Your task to perform on an android device: allow cookies in the chrome app Image 0: 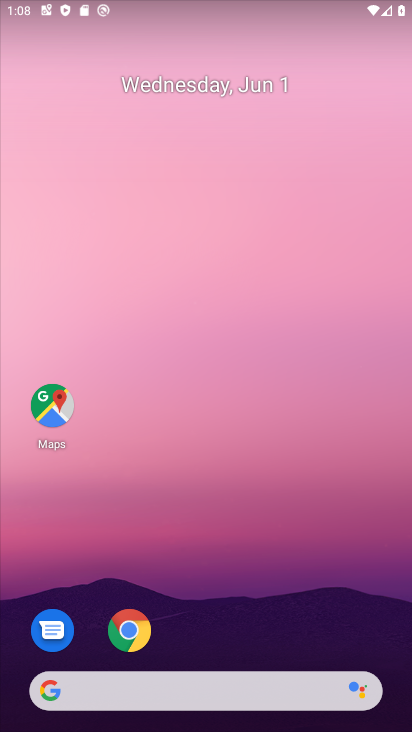
Step 0: press home button
Your task to perform on an android device: allow cookies in the chrome app Image 1: 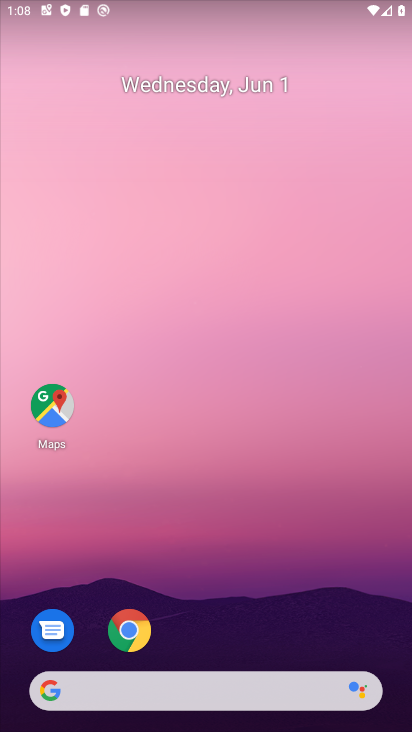
Step 1: click (137, 627)
Your task to perform on an android device: allow cookies in the chrome app Image 2: 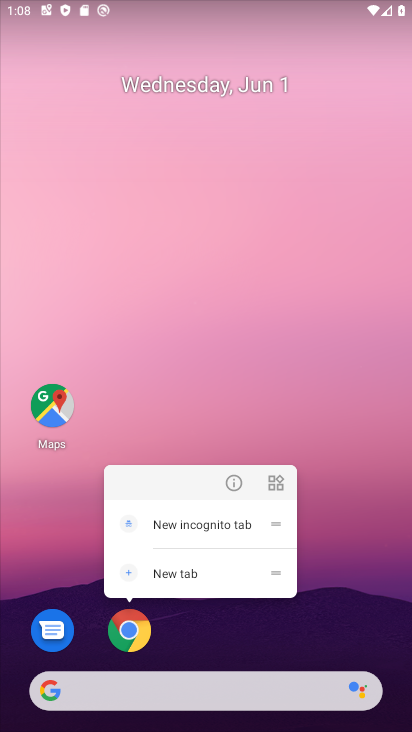
Step 2: click (135, 623)
Your task to perform on an android device: allow cookies in the chrome app Image 3: 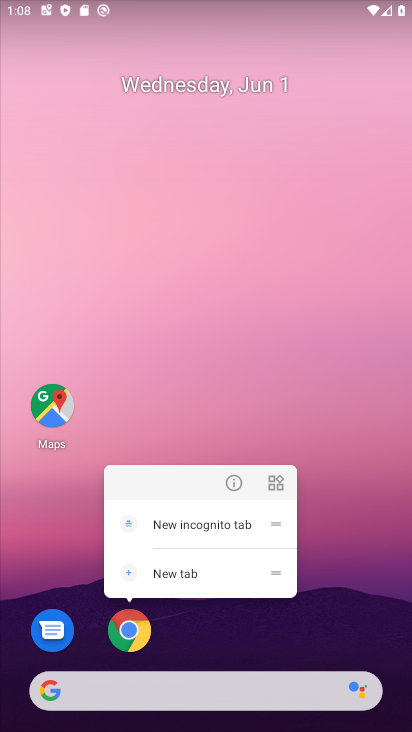
Step 3: click (229, 646)
Your task to perform on an android device: allow cookies in the chrome app Image 4: 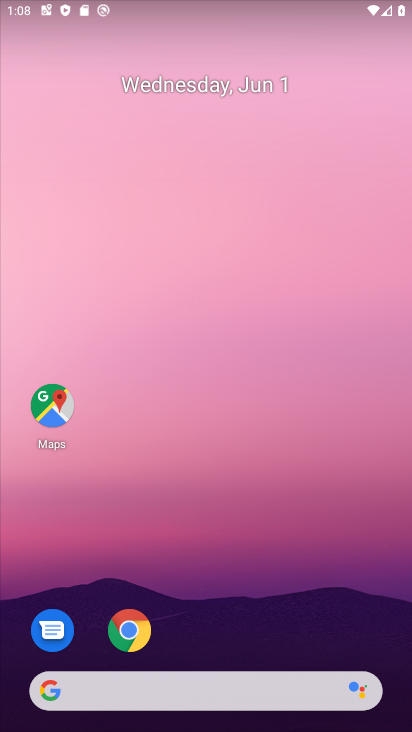
Step 4: click (125, 629)
Your task to perform on an android device: allow cookies in the chrome app Image 5: 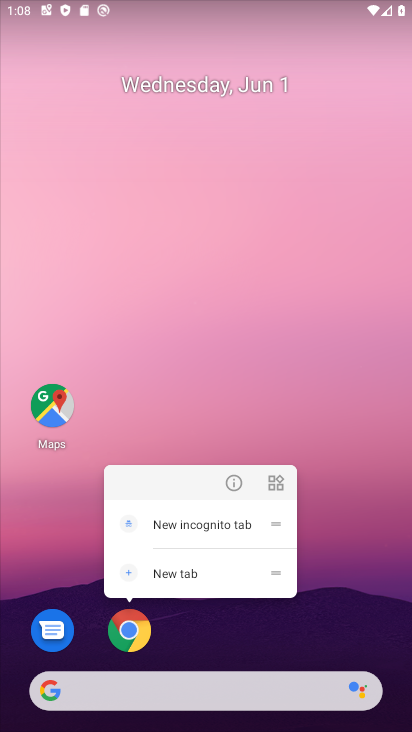
Step 5: click (249, 628)
Your task to perform on an android device: allow cookies in the chrome app Image 6: 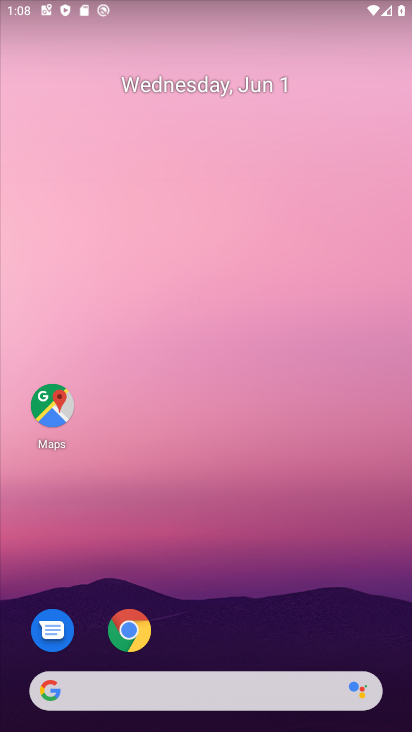
Step 6: drag from (249, 628) to (217, 4)
Your task to perform on an android device: allow cookies in the chrome app Image 7: 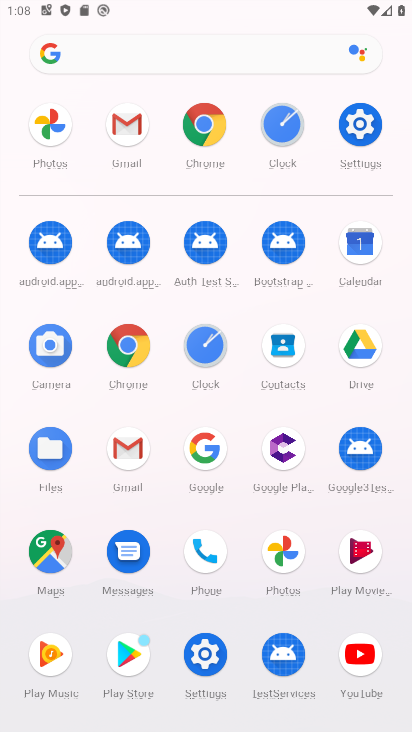
Step 7: click (204, 134)
Your task to perform on an android device: allow cookies in the chrome app Image 8: 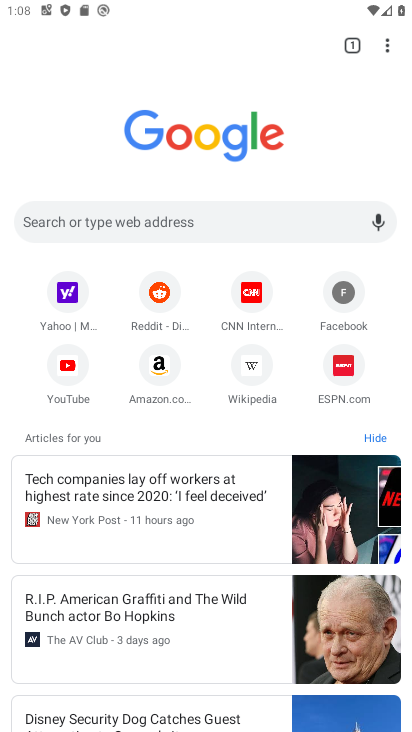
Step 8: drag from (387, 46) to (220, 380)
Your task to perform on an android device: allow cookies in the chrome app Image 9: 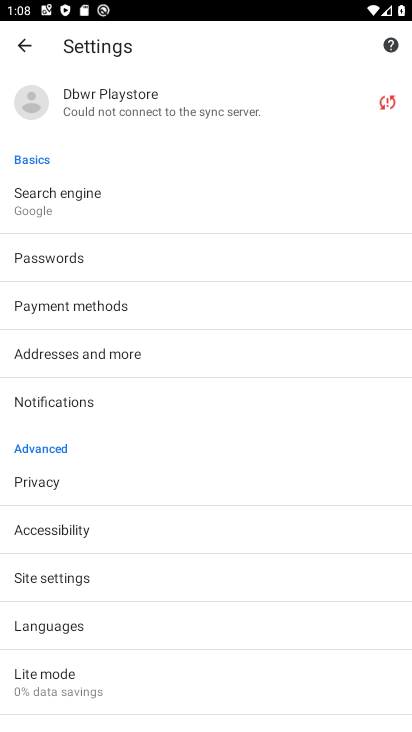
Step 9: click (60, 578)
Your task to perform on an android device: allow cookies in the chrome app Image 10: 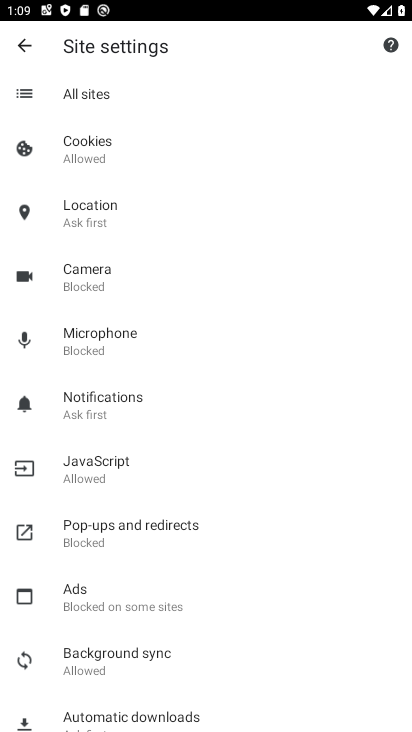
Step 10: click (99, 151)
Your task to perform on an android device: allow cookies in the chrome app Image 11: 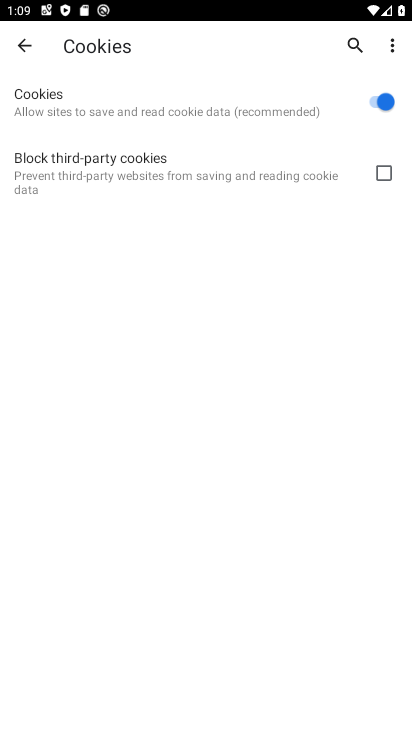
Step 11: task complete